Your task to perform on an android device: Open accessibility settings Image 0: 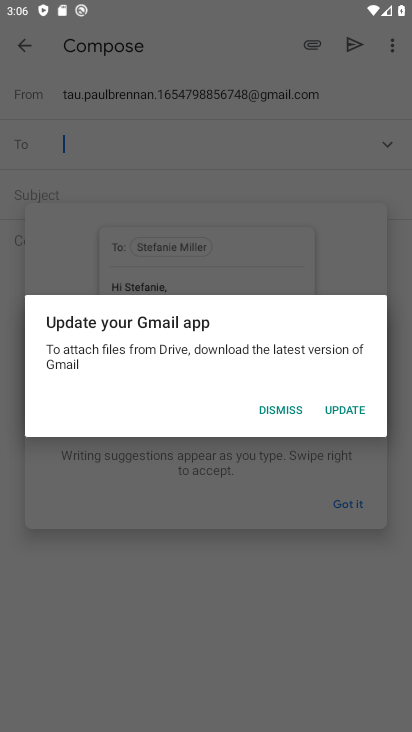
Step 0: press home button
Your task to perform on an android device: Open accessibility settings Image 1: 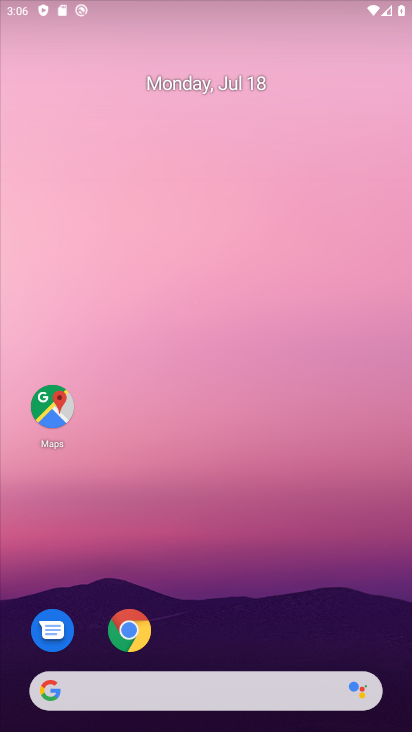
Step 1: drag from (181, 634) to (198, 113)
Your task to perform on an android device: Open accessibility settings Image 2: 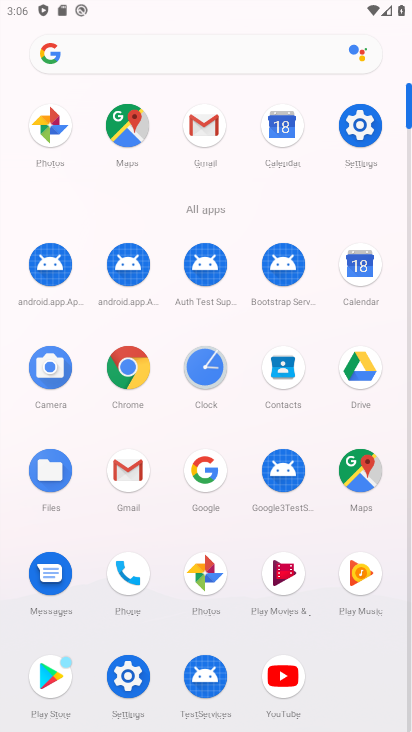
Step 2: click (122, 664)
Your task to perform on an android device: Open accessibility settings Image 3: 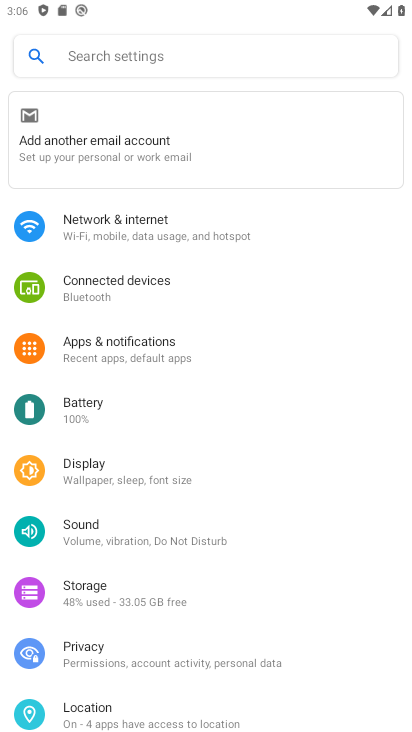
Step 3: drag from (139, 648) to (234, 4)
Your task to perform on an android device: Open accessibility settings Image 4: 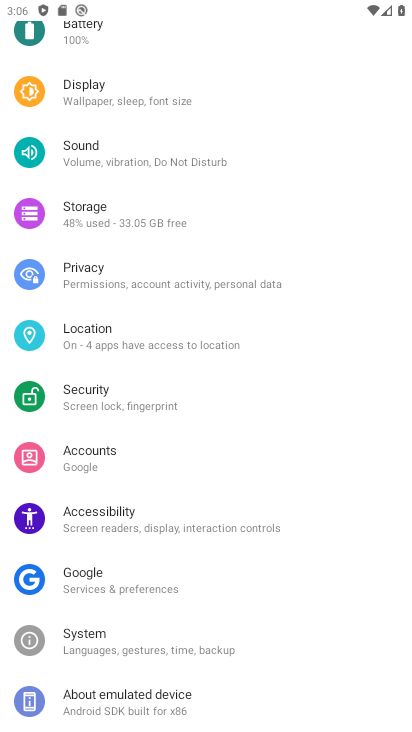
Step 4: click (131, 523)
Your task to perform on an android device: Open accessibility settings Image 5: 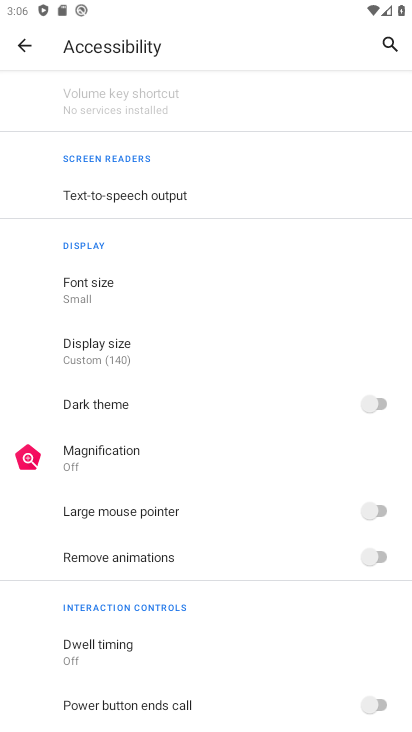
Step 5: task complete